Your task to perform on an android device: Open wifi settings Image 0: 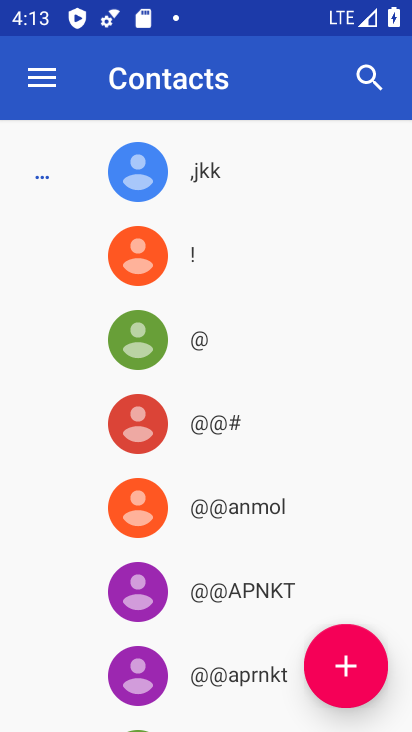
Step 0: drag from (300, 6) to (275, 504)
Your task to perform on an android device: Open wifi settings Image 1: 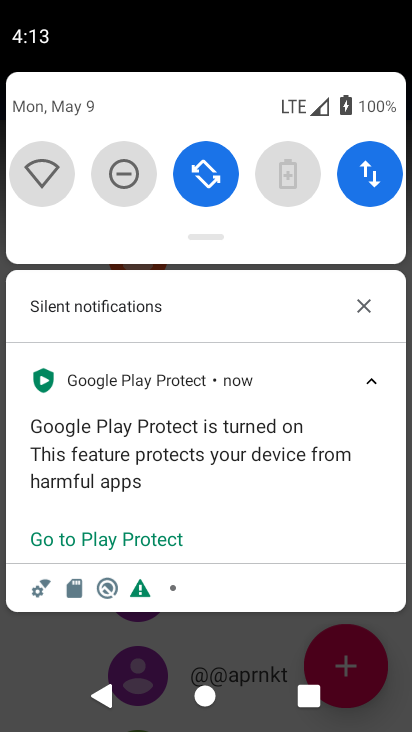
Step 1: click (47, 173)
Your task to perform on an android device: Open wifi settings Image 2: 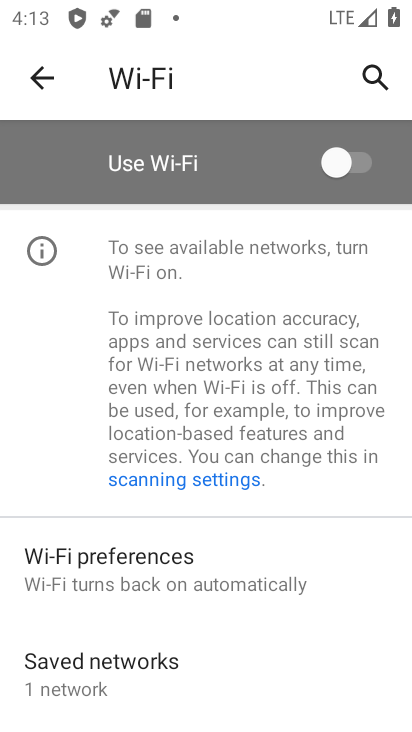
Step 2: task complete